Your task to perform on an android device: check battery use Image 0: 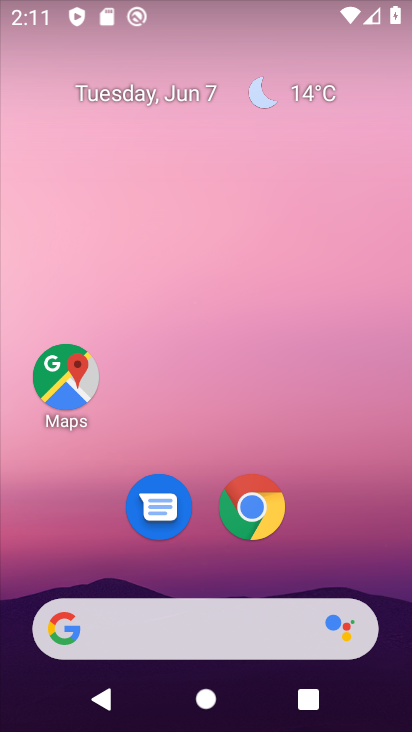
Step 0: drag from (336, 481) to (365, 88)
Your task to perform on an android device: check battery use Image 1: 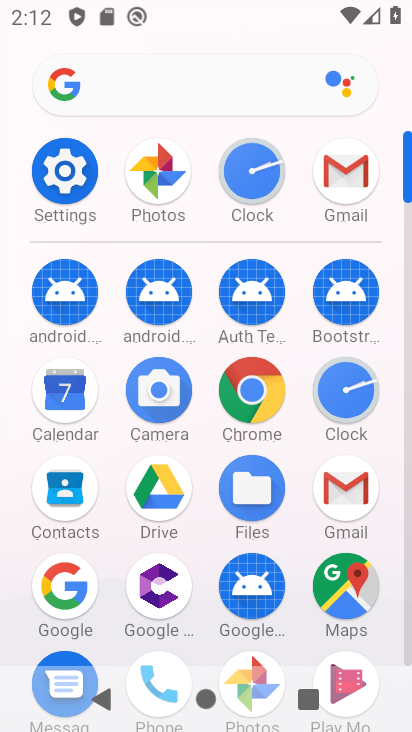
Step 1: click (61, 170)
Your task to perform on an android device: check battery use Image 2: 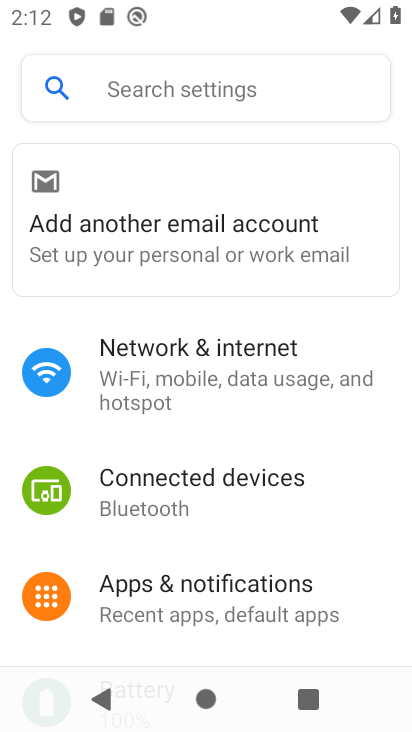
Step 2: drag from (250, 555) to (257, 116)
Your task to perform on an android device: check battery use Image 3: 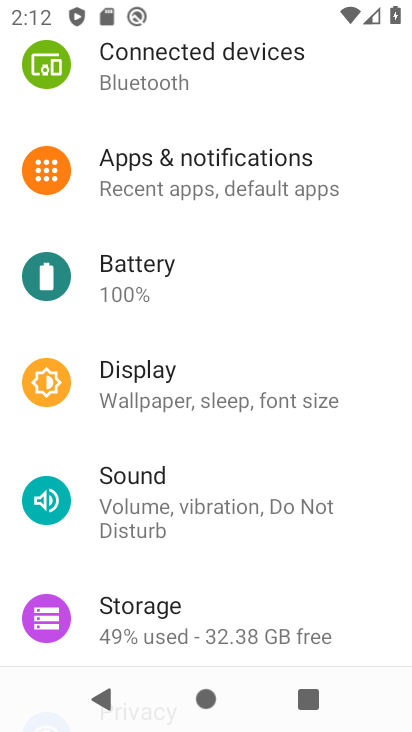
Step 3: drag from (191, 513) to (234, 414)
Your task to perform on an android device: check battery use Image 4: 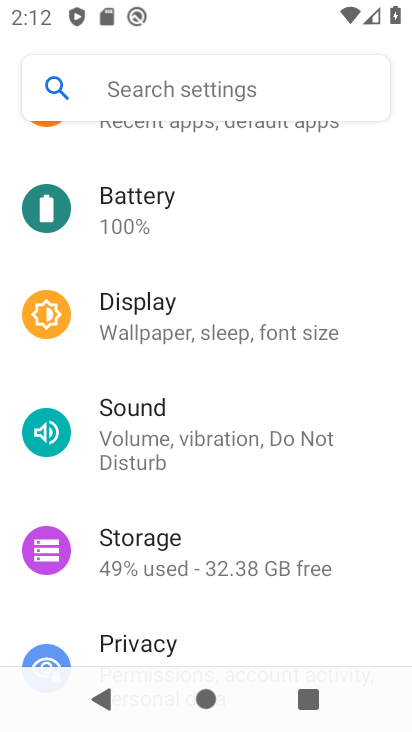
Step 4: click (152, 229)
Your task to perform on an android device: check battery use Image 5: 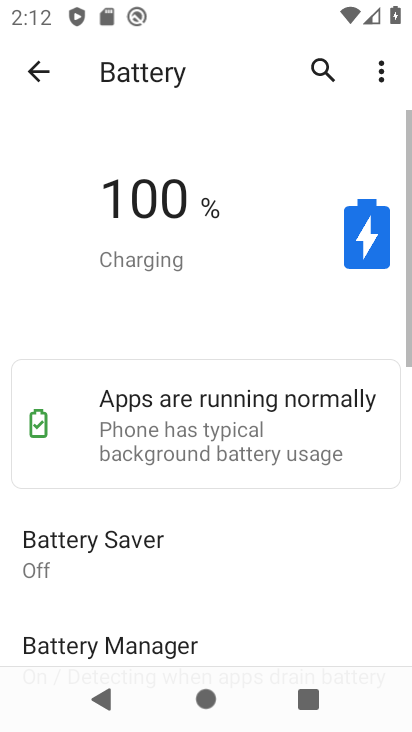
Step 5: click (381, 61)
Your task to perform on an android device: check battery use Image 6: 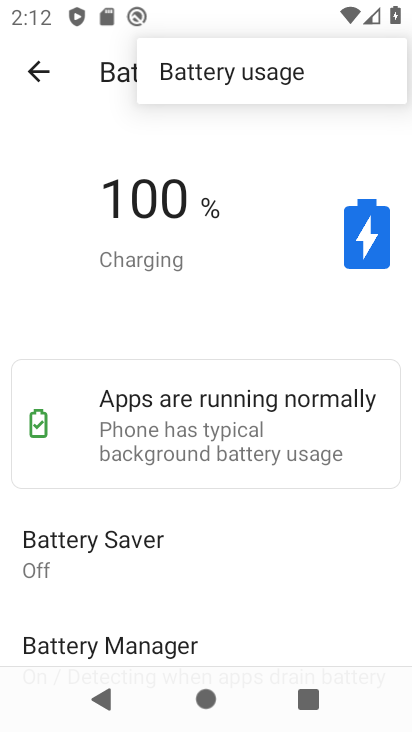
Step 6: click (260, 68)
Your task to perform on an android device: check battery use Image 7: 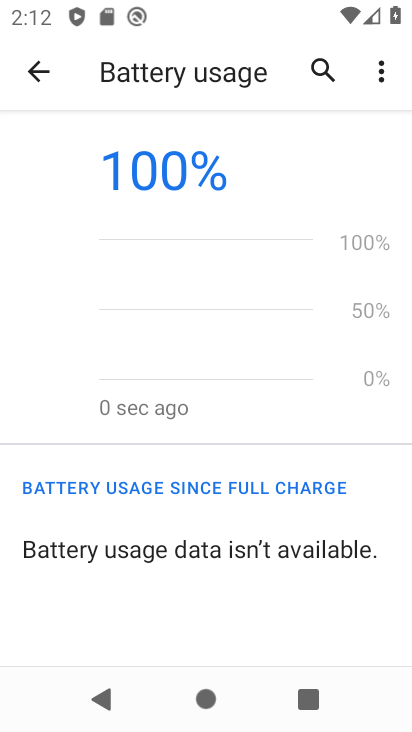
Step 7: task complete